Your task to perform on an android device: Play the last video I watched on Youtube Image 0: 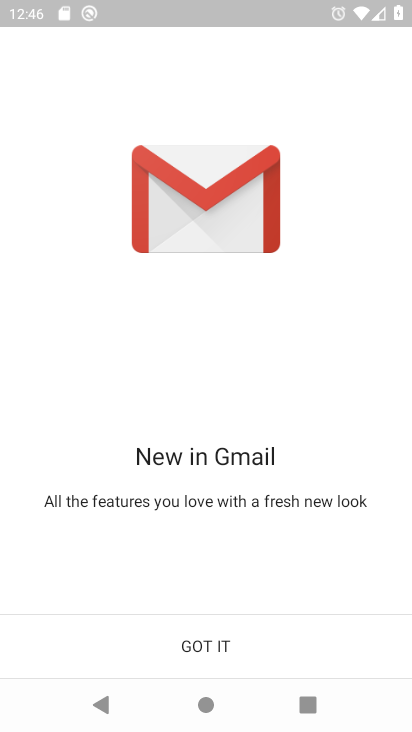
Step 0: press home button
Your task to perform on an android device: Play the last video I watched on Youtube Image 1: 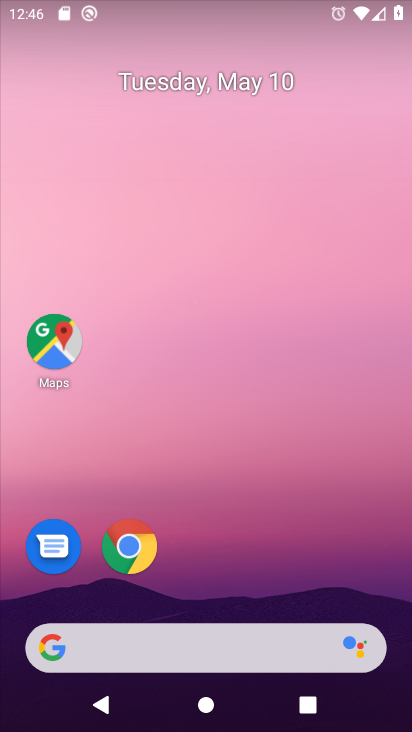
Step 1: drag from (297, 605) to (307, 344)
Your task to perform on an android device: Play the last video I watched on Youtube Image 2: 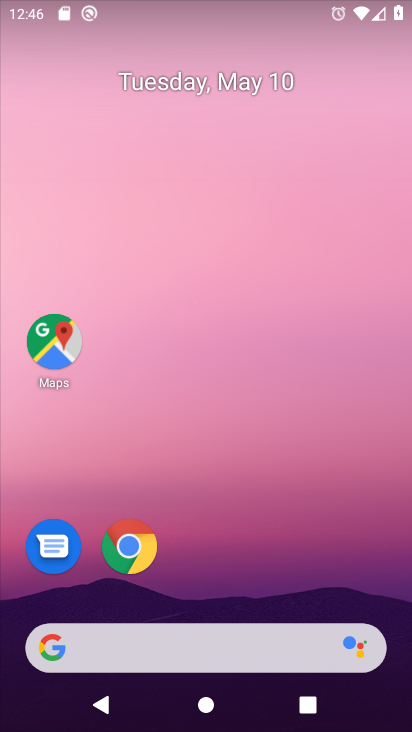
Step 2: drag from (309, 333) to (275, 33)
Your task to perform on an android device: Play the last video I watched on Youtube Image 3: 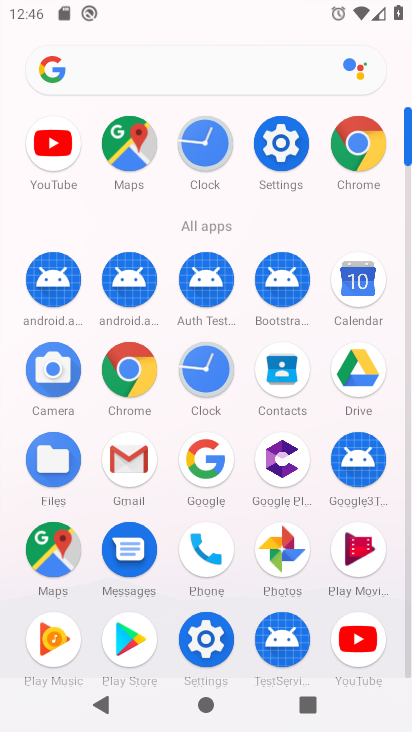
Step 3: click (61, 122)
Your task to perform on an android device: Play the last video I watched on Youtube Image 4: 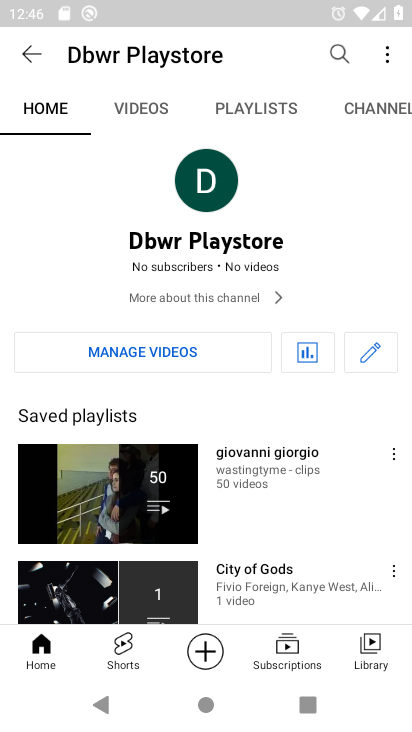
Step 4: click (29, 51)
Your task to perform on an android device: Play the last video I watched on Youtube Image 5: 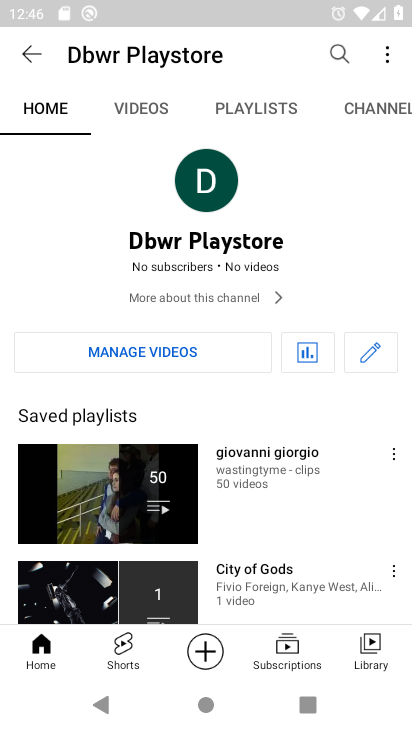
Step 5: click (29, 51)
Your task to perform on an android device: Play the last video I watched on Youtube Image 6: 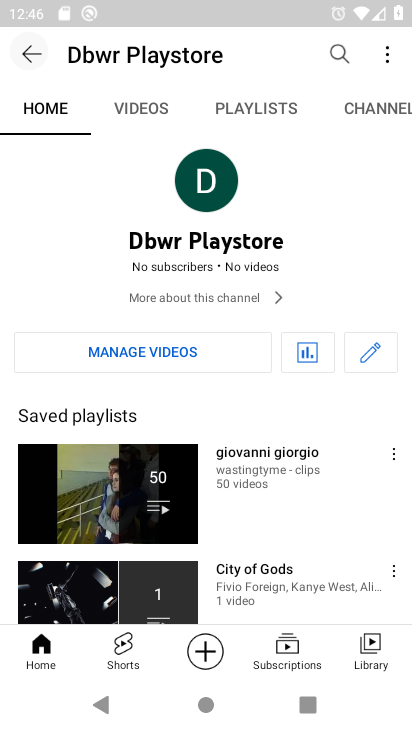
Step 6: click (29, 51)
Your task to perform on an android device: Play the last video I watched on Youtube Image 7: 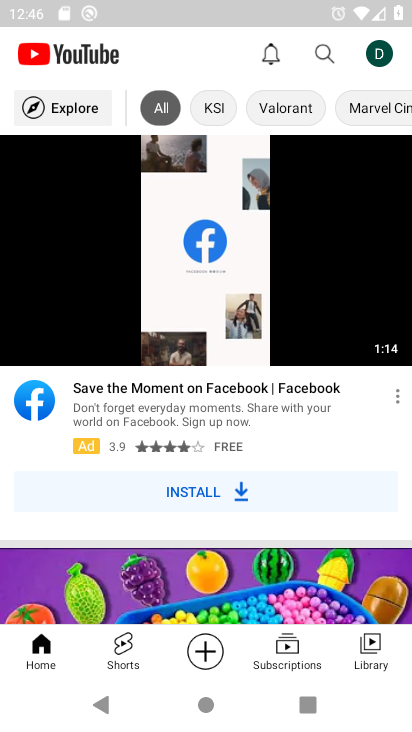
Step 7: click (376, 669)
Your task to perform on an android device: Play the last video I watched on Youtube Image 8: 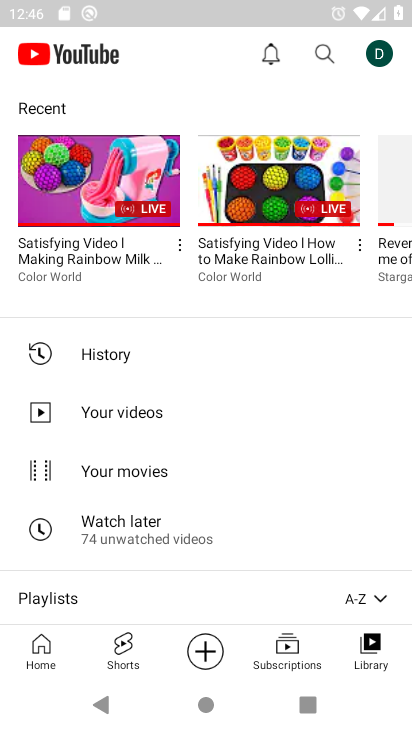
Step 8: click (101, 231)
Your task to perform on an android device: Play the last video I watched on Youtube Image 9: 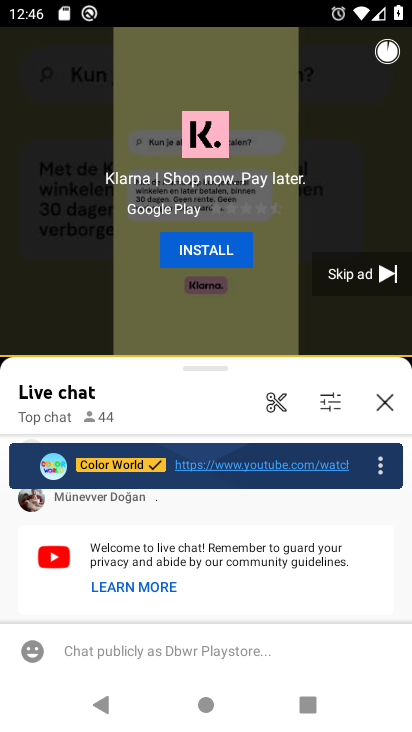
Step 9: click (399, 295)
Your task to perform on an android device: Play the last video I watched on Youtube Image 10: 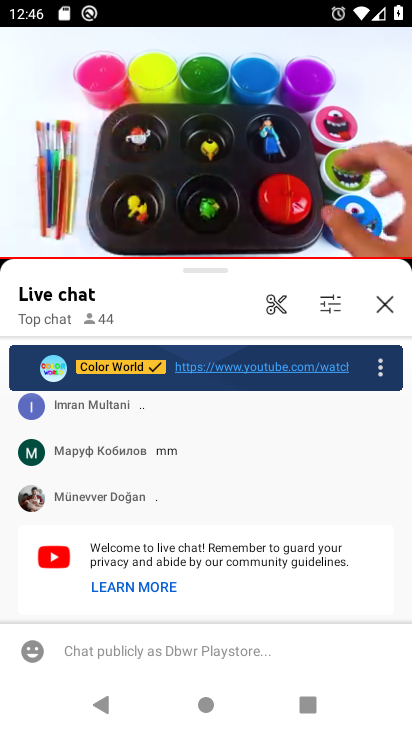
Step 10: task complete